Your task to perform on an android device: Search for acer predator on walmart, select the first entry, and add it to the cart. Image 0: 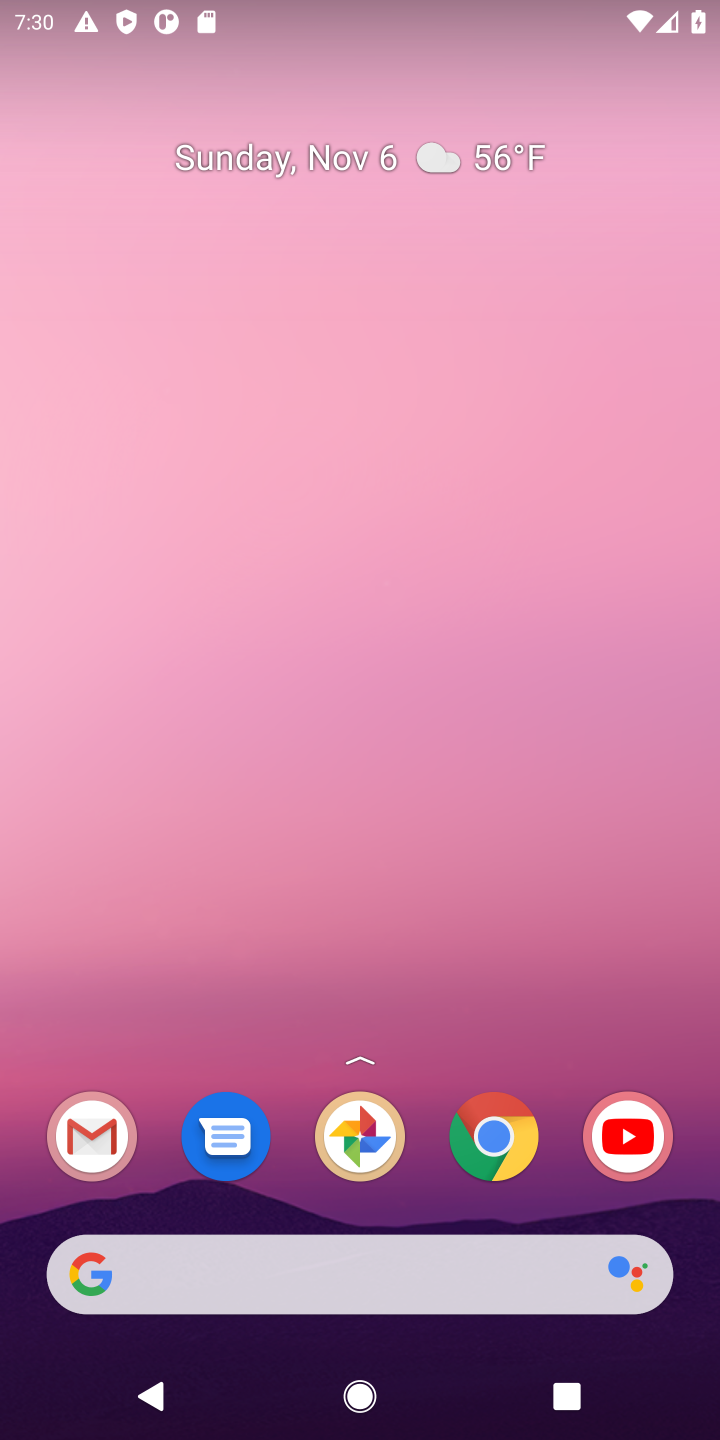
Step 0: click (390, 1292)
Your task to perform on an android device: Search for acer predator on walmart, select the first entry, and add it to the cart. Image 1: 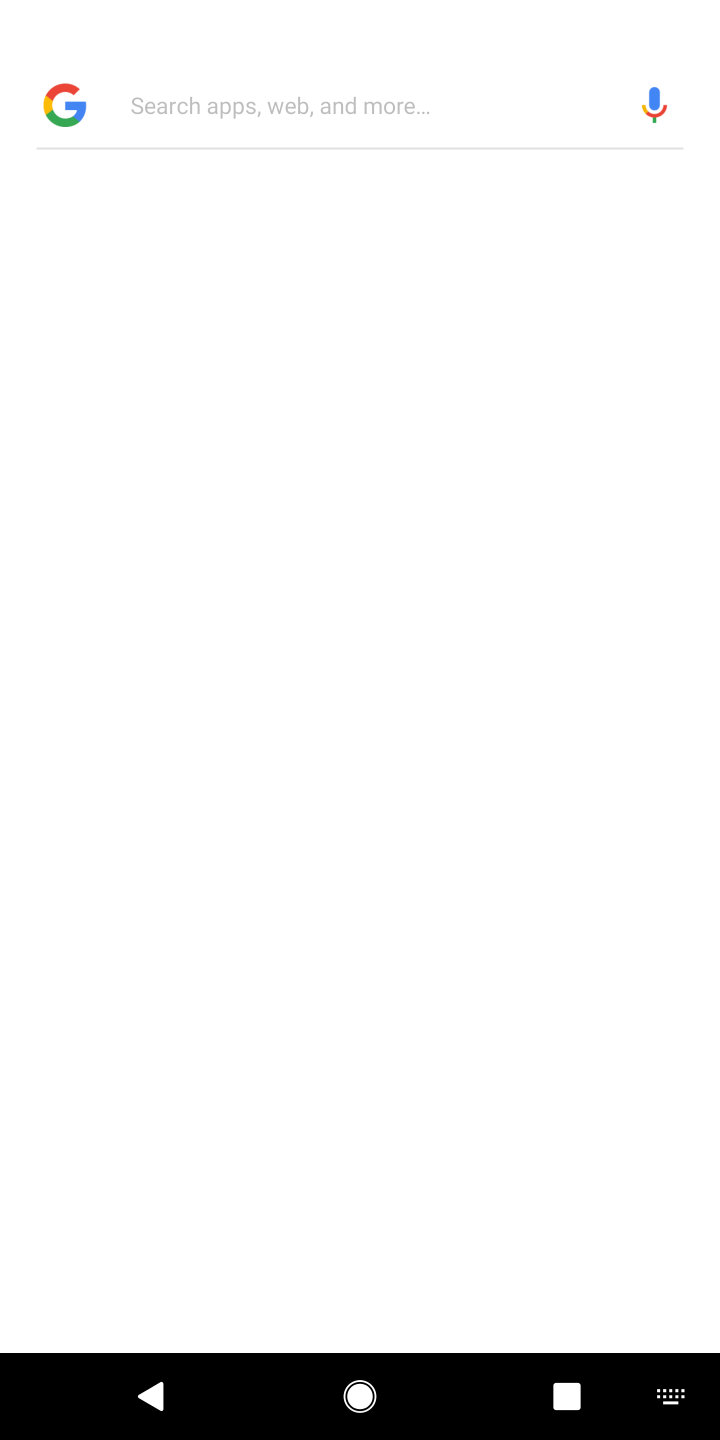
Step 1: task complete